Your task to perform on an android device: toggle show notifications on the lock screen Image 0: 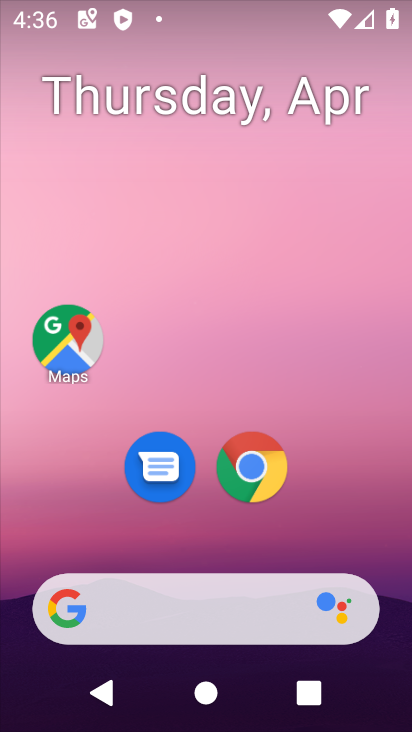
Step 0: drag from (208, 540) to (256, 195)
Your task to perform on an android device: toggle show notifications on the lock screen Image 1: 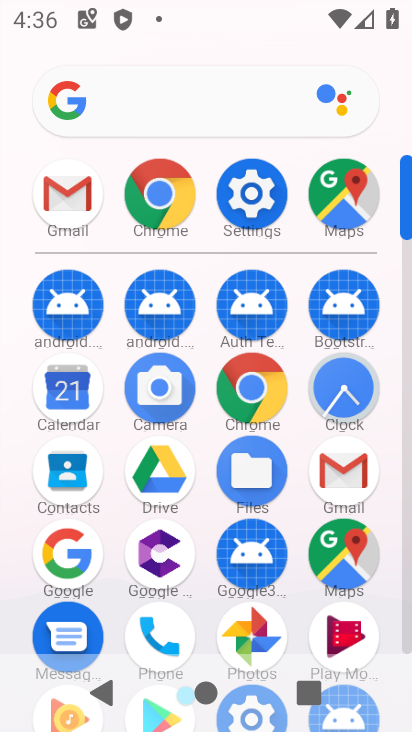
Step 1: click (246, 203)
Your task to perform on an android device: toggle show notifications on the lock screen Image 2: 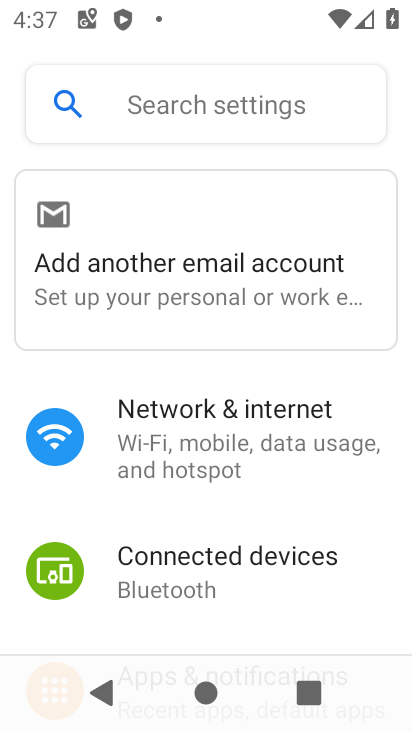
Step 2: drag from (209, 551) to (236, 363)
Your task to perform on an android device: toggle show notifications on the lock screen Image 3: 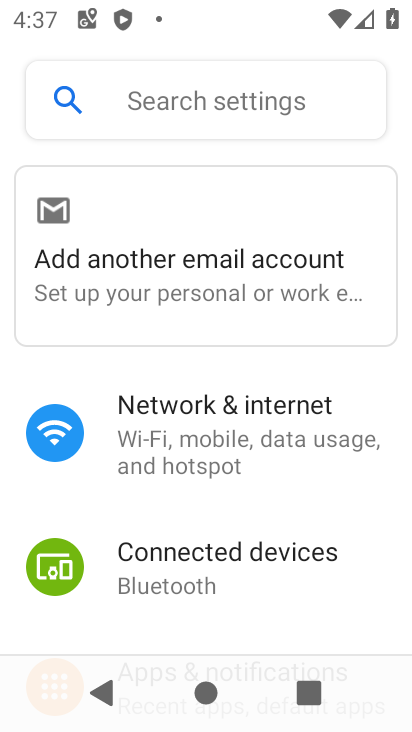
Step 3: drag from (214, 572) to (270, 287)
Your task to perform on an android device: toggle show notifications on the lock screen Image 4: 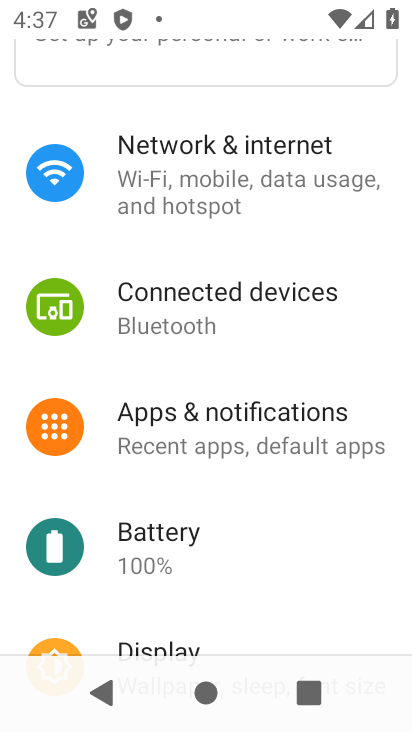
Step 4: click (202, 426)
Your task to perform on an android device: toggle show notifications on the lock screen Image 5: 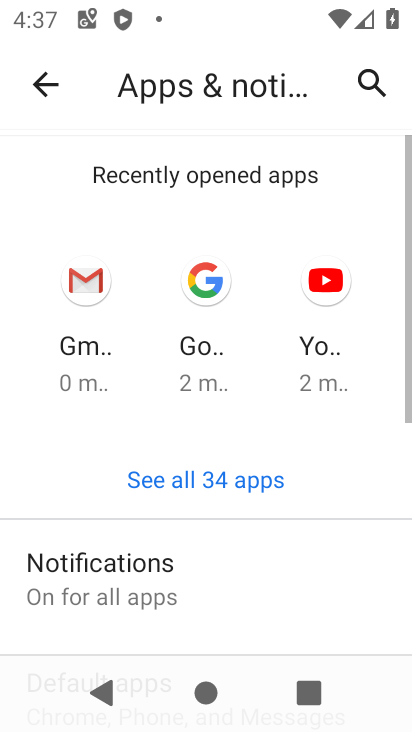
Step 5: drag from (107, 528) to (131, 321)
Your task to perform on an android device: toggle show notifications on the lock screen Image 6: 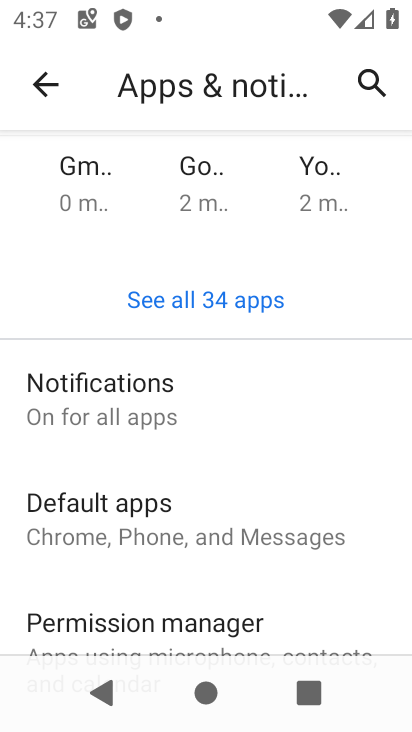
Step 6: click (132, 405)
Your task to perform on an android device: toggle show notifications on the lock screen Image 7: 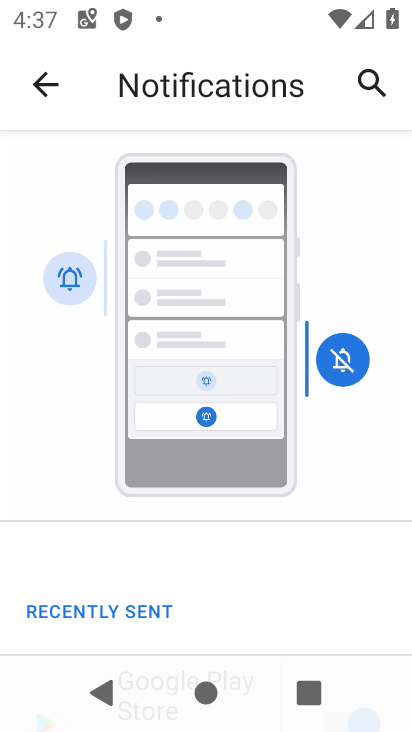
Step 7: drag from (108, 582) to (139, 285)
Your task to perform on an android device: toggle show notifications on the lock screen Image 8: 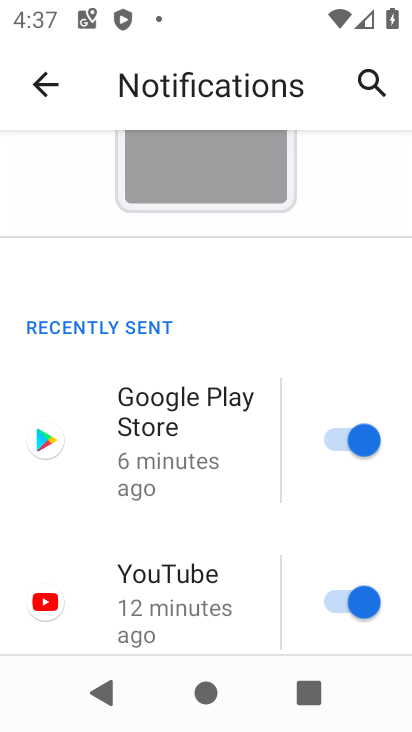
Step 8: drag from (144, 470) to (190, 255)
Your task to perform on an android device: toggle show notifications on the lock screen Image 9: 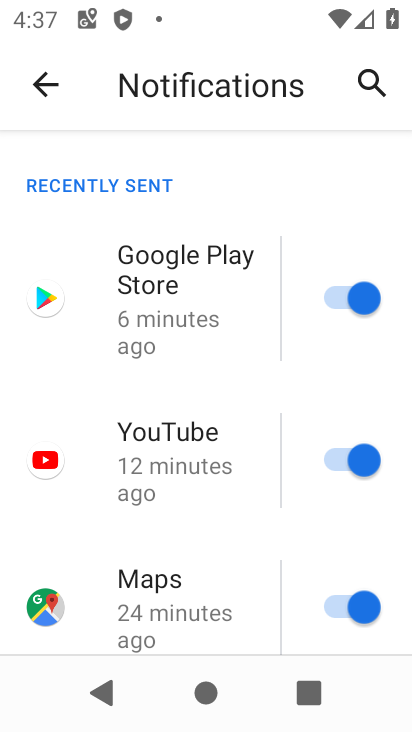
Step 9: drag from (166, 544) to (213, 289)
Your task to perform on an android device: toggle show notifications on the lock screen Image 10: 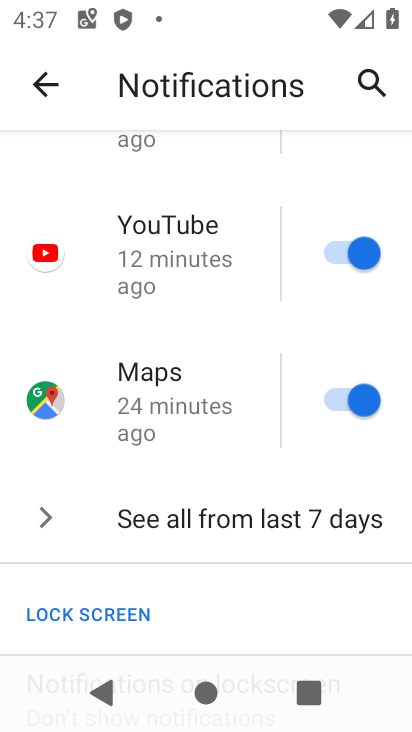
Step 10: drag from (182, 580) to (229, 279)
Your task to perform on an android device: toggle show notifications on the lock screen Image 11: 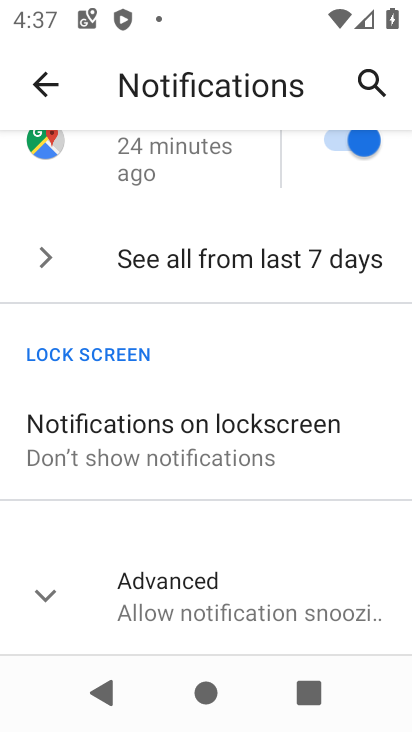
Step 11: click (122, 439)
Your task to perform on an android device: toggle show notifications on the lock screen Image 12: 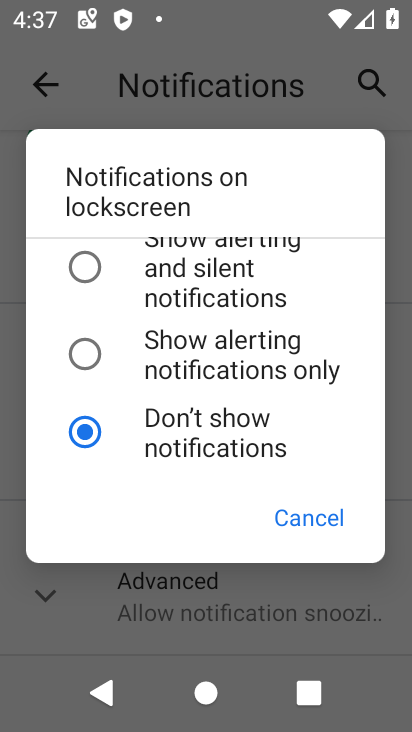
Step 12: click (80, 261)
Your task to perform on an android device: toggle show notifications on the lock screen Image 13: 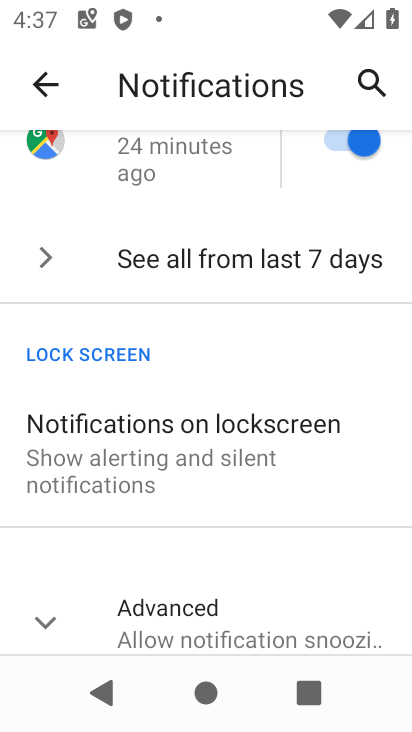
Step 13: task complete